Your task to perform on an android device: Open calendar and show me the first week of next month Image 0: 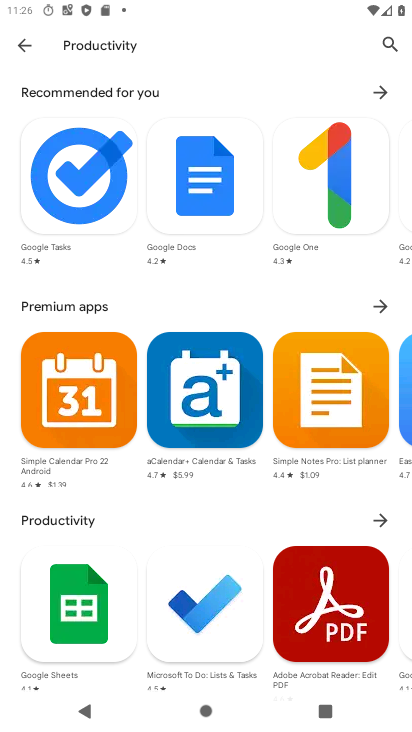
Step 0: press back button
Your task to perform on an android device: Open calendar and show me the first week of next month Image 1: 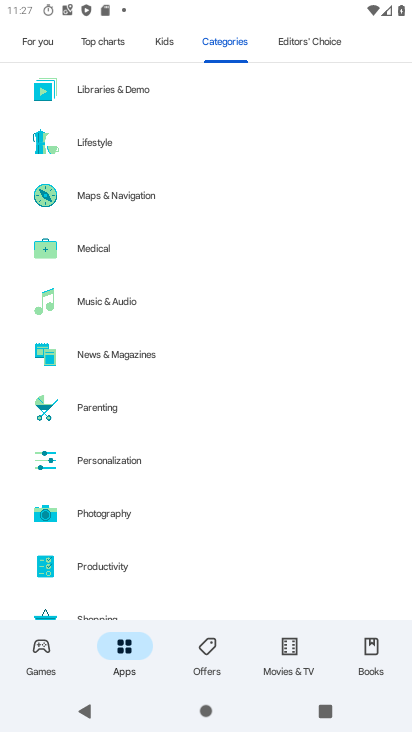
Step 1: press back button
Your task to perform on an android device: Open calendar and show me the first week of next month Image 2: 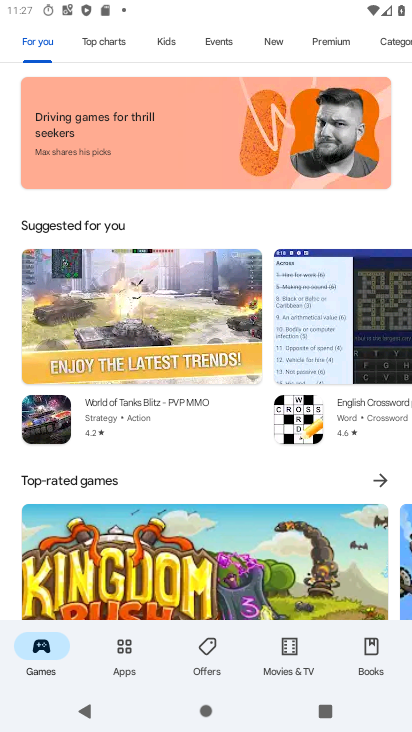
Step 2: press back button
Your task to perform on an android device: Open calendar and show me the first week of next month Image 3: 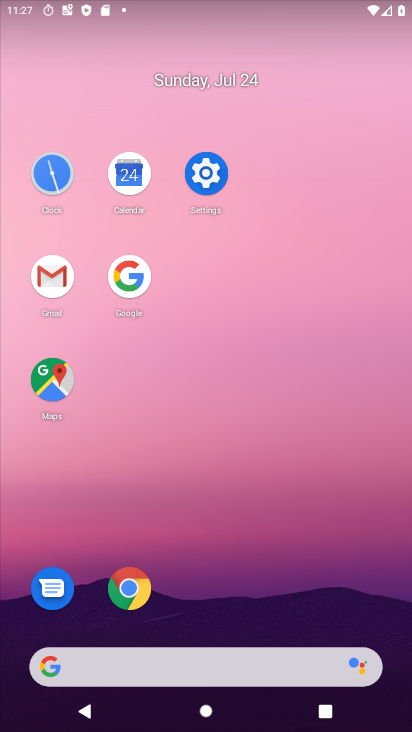
Step 3: click (136, 185)
Your task to perform on an android device: Open calendar and show me the first week of next month Image 4: 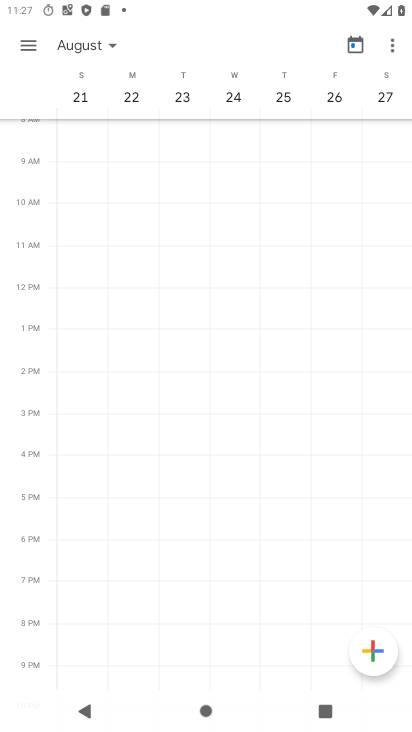
Step 4: click (46, 47)
Your task to perform on an android device: Open calendar and show me the first week of next month Image 5: 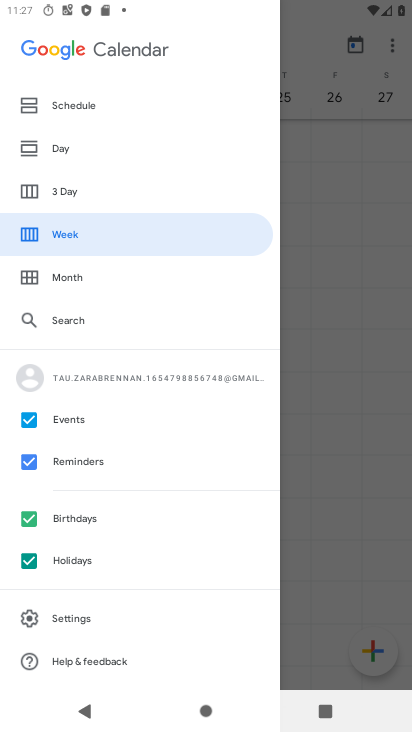
Step 5: click (109, 215)
Your task to perform on an android device: Open calendar and show me the first week of next month Image 6: 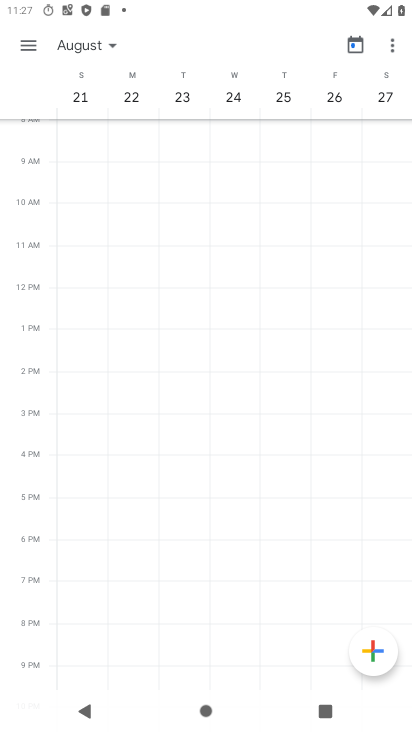
Step 6: task complete